Your task to perform on an android device: empty trash in the gmail app Image 0: 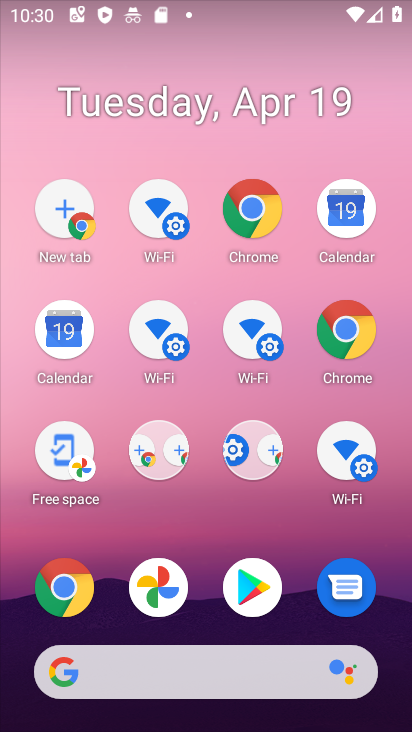
Step 0: drag from (287, 541) to (143, 148)
Your task to perform on an android device: empty trash in the gmail app Image 1: 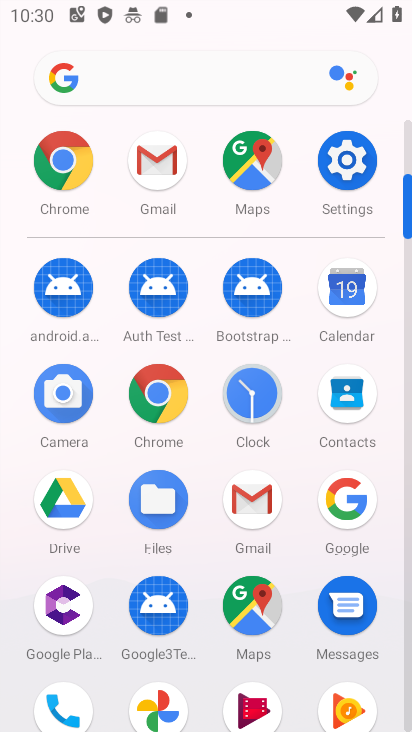
Step 1: click (264, 510)
Your task to perform on an android device: empty trash in the gmail app Image 2: 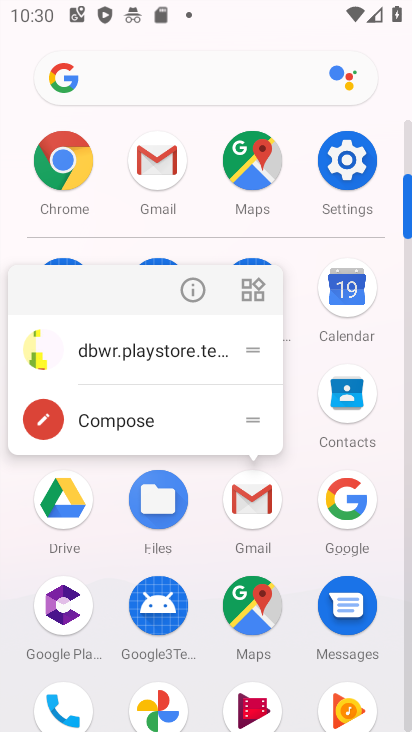
Step 2: click (265, 511)
Your task to perform on an android device: empty trash in the gmail app Image 3: 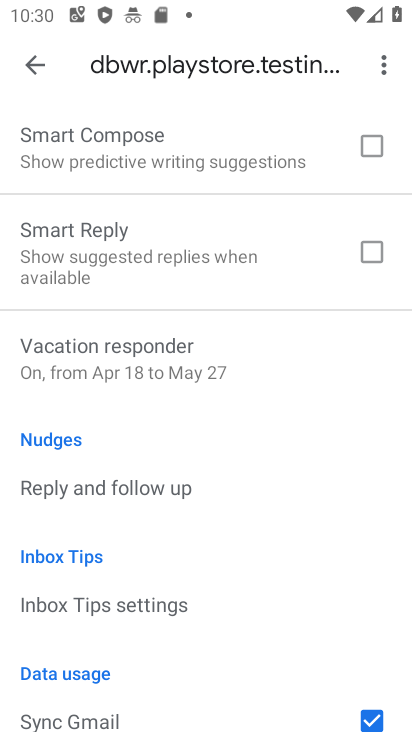
Step 3: click (39, 61)
Your task to perform on an android device: empty trash in the gmail app Image 4: 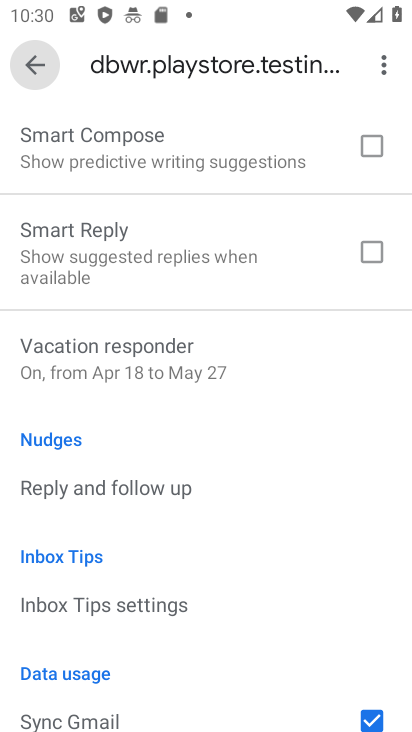
Step 4: click (39, 61)
Your task to perform on an android device: empty trash in the gmail app Image 5: 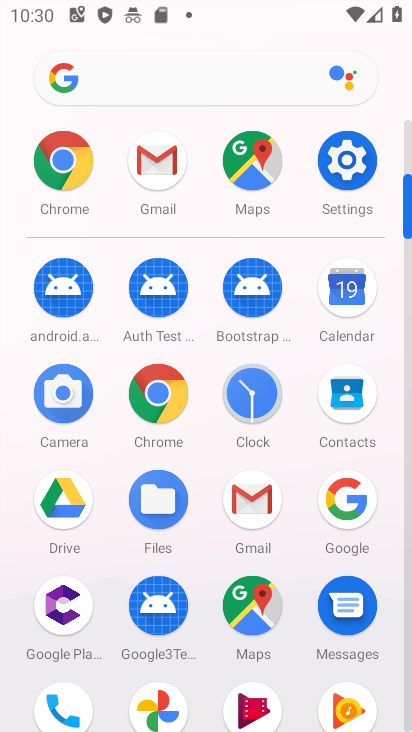
Step 5: click (27, 61)
Your task to perform on an android device: empty trash in the gmail app Image 6: 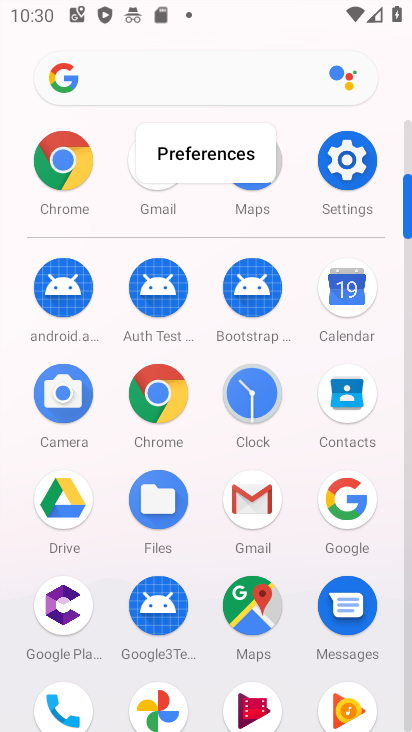
Step 6: click (235, 497)
Your task to perform on an android device: empty trash in the gmail app Image 7: 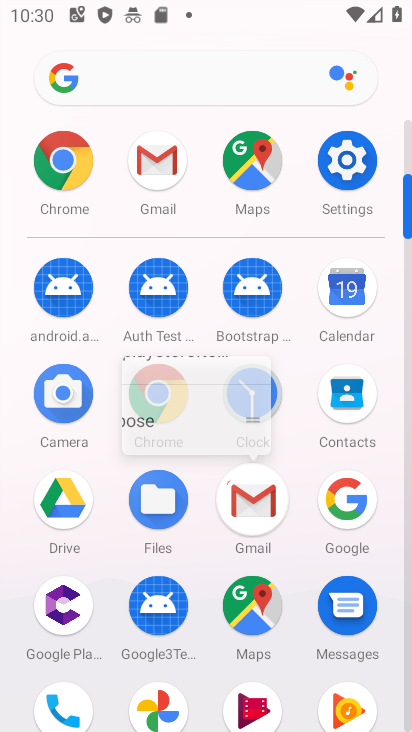
Step 7: click (240, 494)
Your task to perform on an android device: empty trash in the gmail app Image 8: 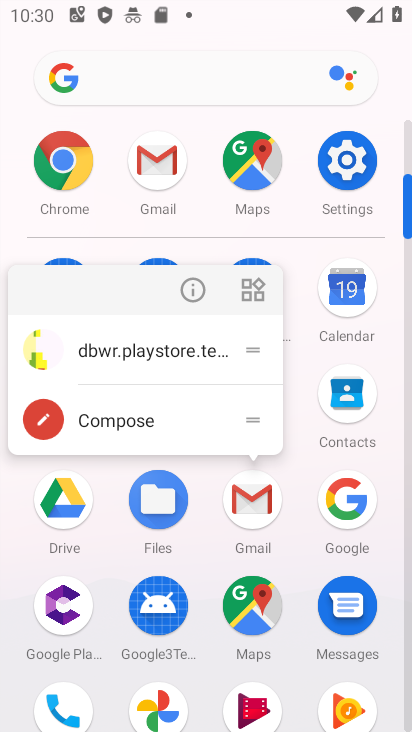
Step 8: click (241, 493)
Your task to perform on an android device: empty trash in the gmail app Image 9: 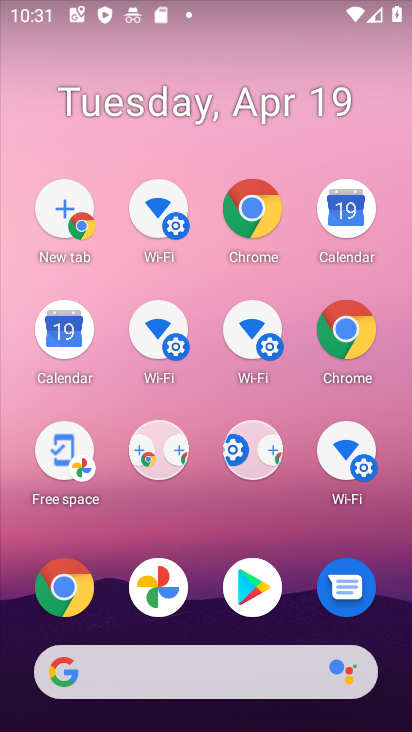
Step 9: drag from (148, 189) to (151, 153)
Your task to perform on an android device: empty trash in the gmail app Image 10: 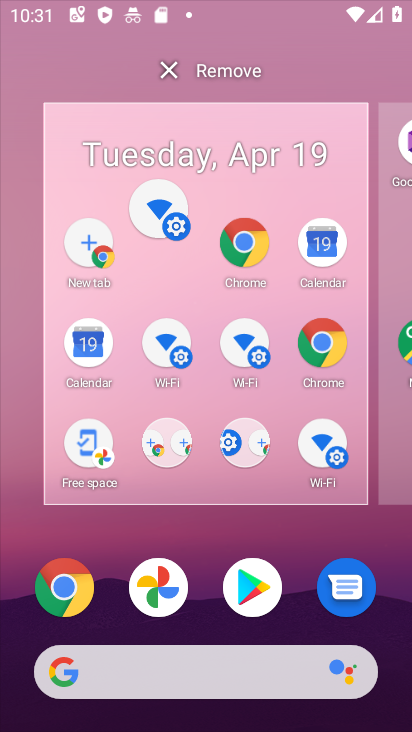
Step 10: drag from (124, 144) to (222, 107)
Your task to perform on an android device: empty trash in the gmail app Image 11: 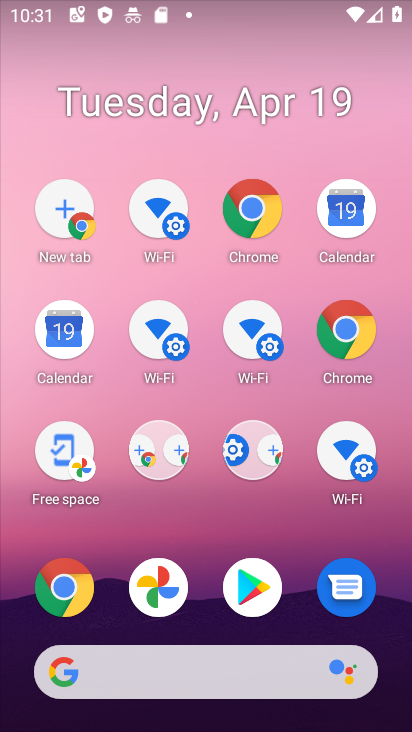
Step 11: drag from (231, 589) to (215, 118)
Your task to perform on an android device: empty trash in the gmail app Image 12: 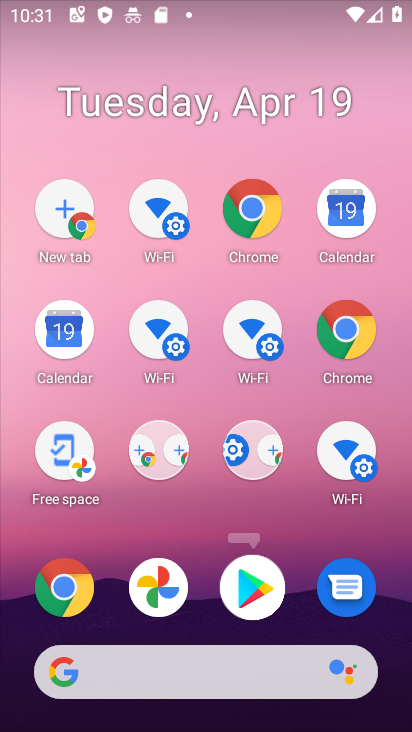
Step 12: drag from (258, 481) to (172, 92)
Your task to perform on an android device: empty trash in the gmail app Image 13: 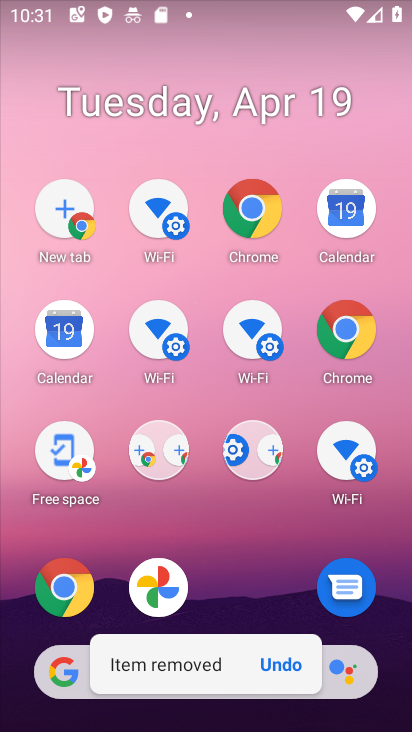
Step 13: drag from (254, 606) to (221, 184)
Your task to perform on an android device: empty trash in the gmail app Image 14: 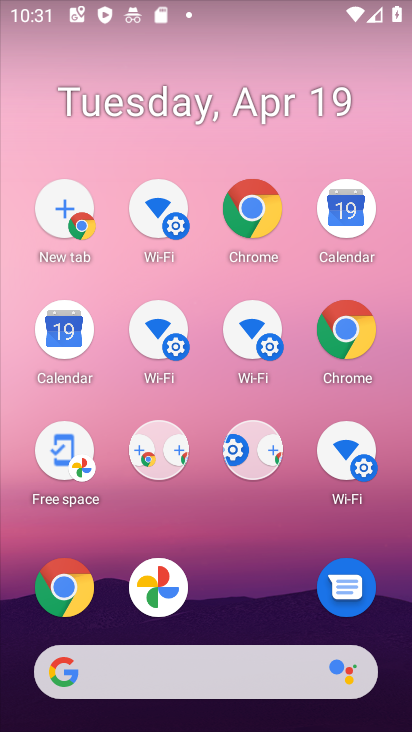
Step 14: drag from (315, 573) to (319, 241)
Your task to perform on an android device: empty trash in the gmail app Image 15: 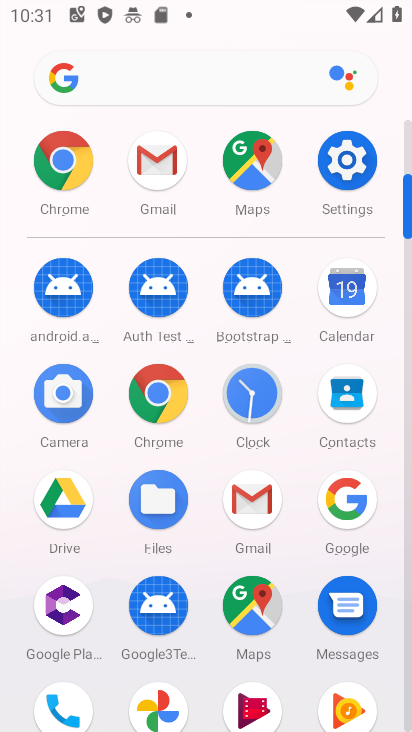
Step 15: click (259, 496)
Your task to perform on an android device: empty trash in the gmail app Image 16: 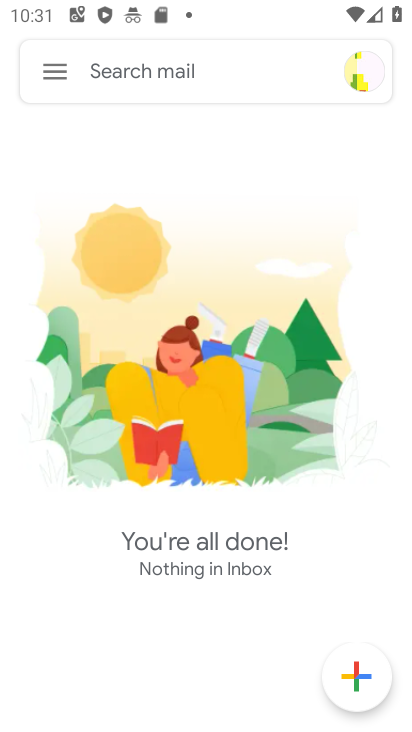
Step 16: click (45, 68)
Your task to perform on an android device: empty trash in the gmail app Image 17: 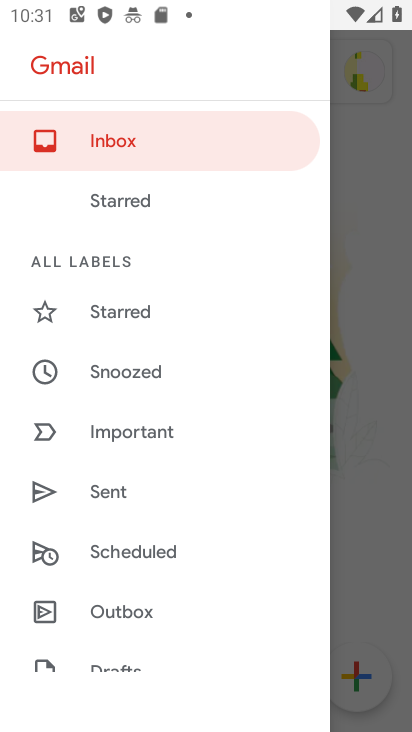
Step 17: drag from (143, 535) to (137, 234)
Your task to perform on an android device: empty trash in the gmail app Image 18: 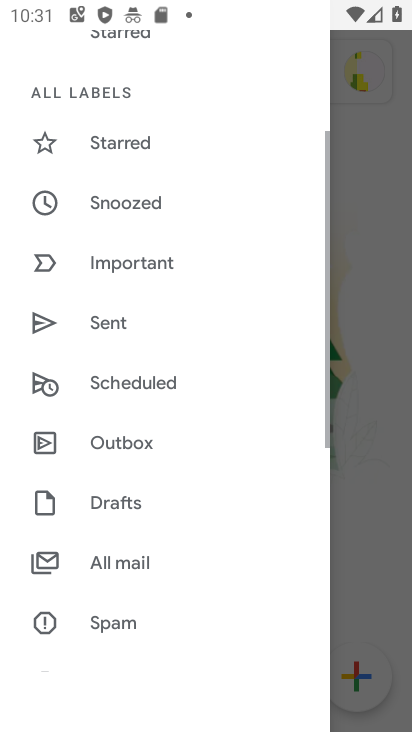
Step 18: drag from (158, 529) to (142, 248)
Your task to perform on an android device: empty trash in the gmail app Image 19: 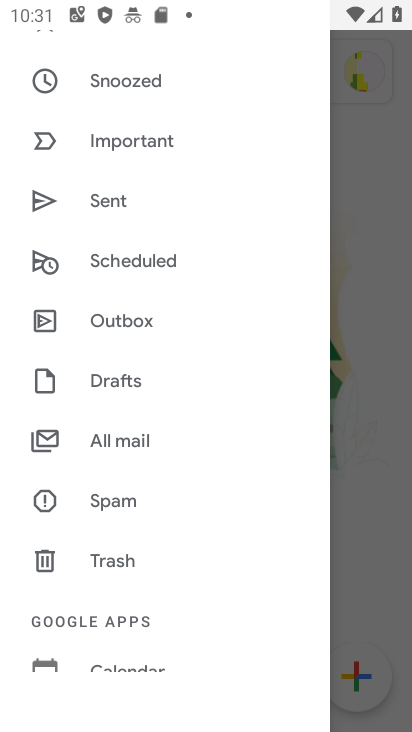
Step 19: click (99, 554)
Your task to perform on an android device: empty trash in the gmail app Image 20: 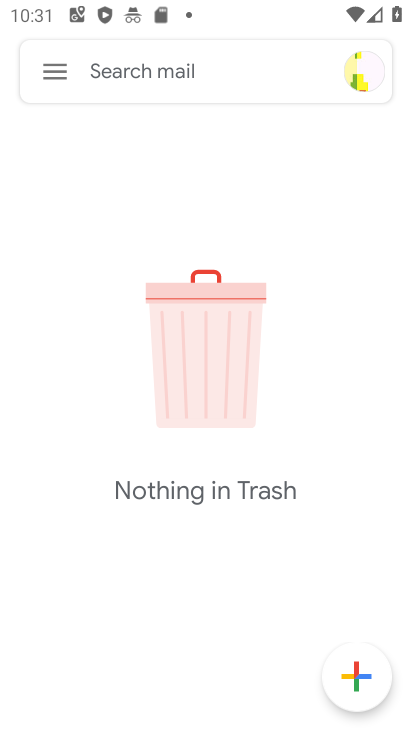
Step 20: click (99, 559)
Your task to perform on an android device: empty trash in the gmail app Image 21: 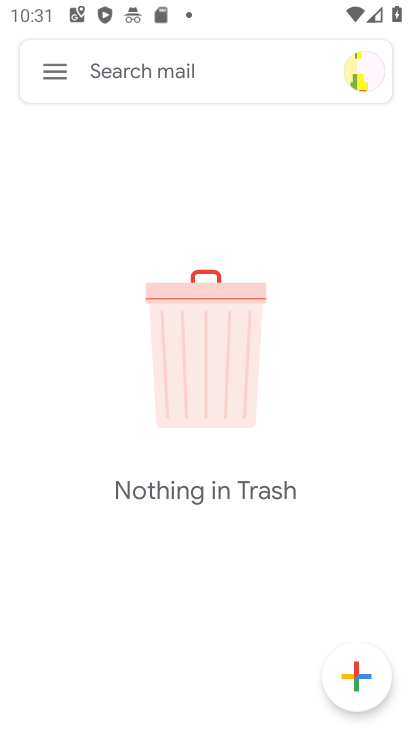
Step 21: click (103, 557)
Your task to perform on an android device: empty trash in the gmail app Image 22: 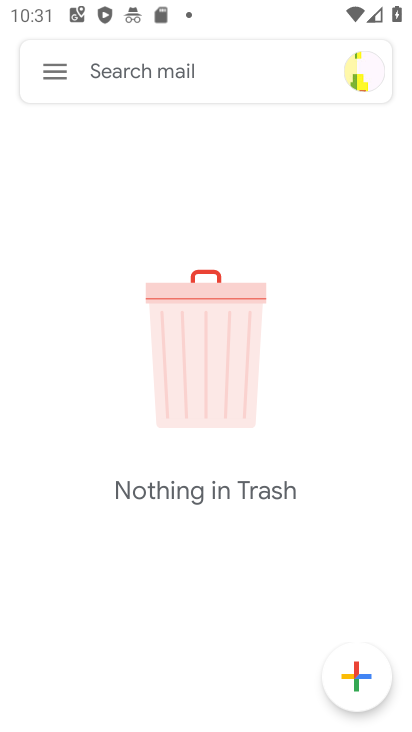
Step 22: task complete